Your task to perform on an android device: add a label to a message in the gmail app Image 0: 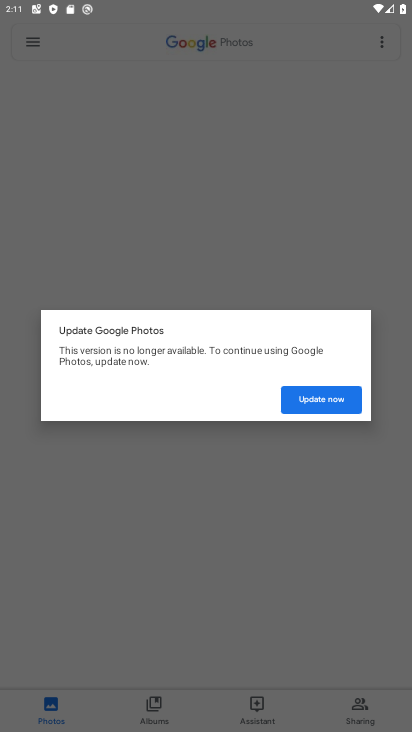
Step 0: press home button
Your task to perform on an android device: add a label to a message in the gmail app Image 1: 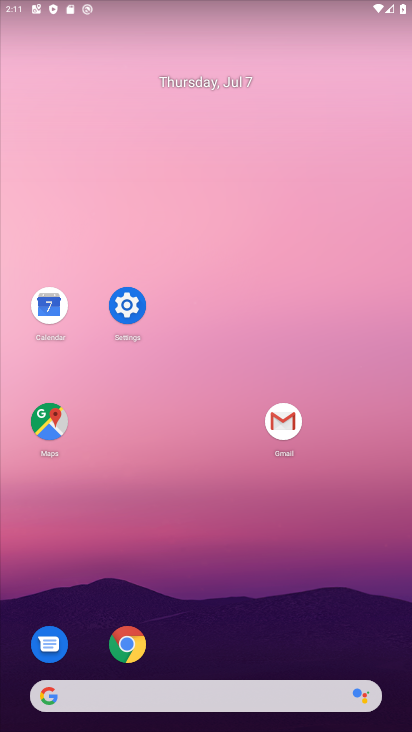
Step 1: click (292, 420)
Your task to perform on an android device: add a label to a message in the gmail app Image 2: 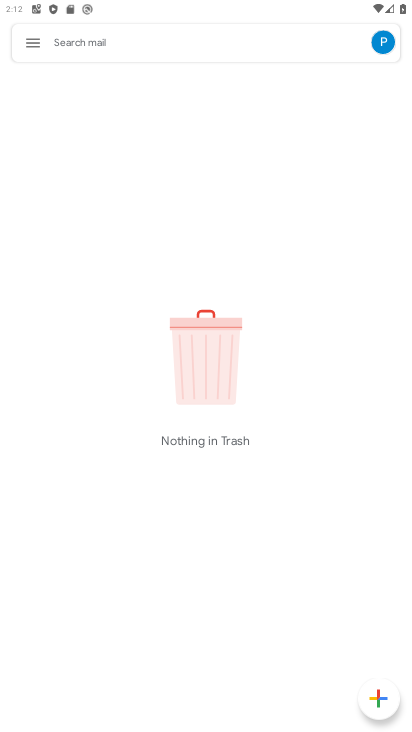
Step 2: click (23, 42)
Your task to perform on an android device: add a label to a message in the gmail app Image 3: 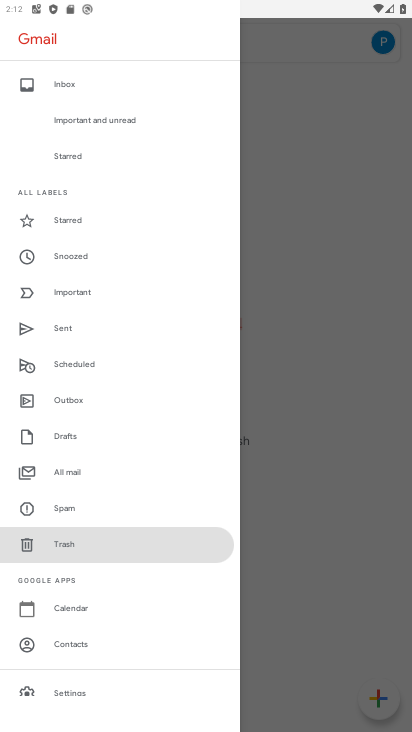
Step 3: drag from (165, 632) to (154, 254)
Your task to perform on an android device: add a label to a message in the gmail app Image 4: 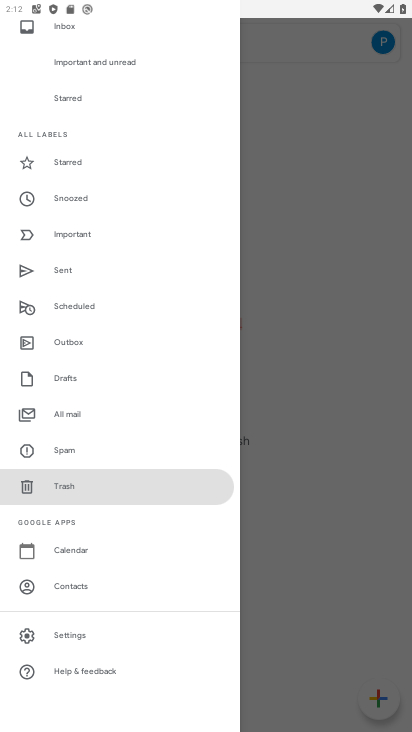
Step 4: click (77, 628)
Your task to perform on an android device: add a label to a message in the gmail app Image 5: 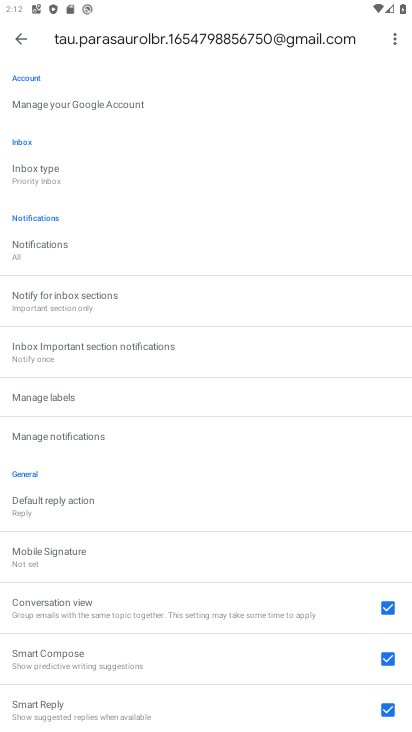
Step 5: task complete